Your task to perform on an android device: Search for the best gaming mouses on Amazon. Image 0: 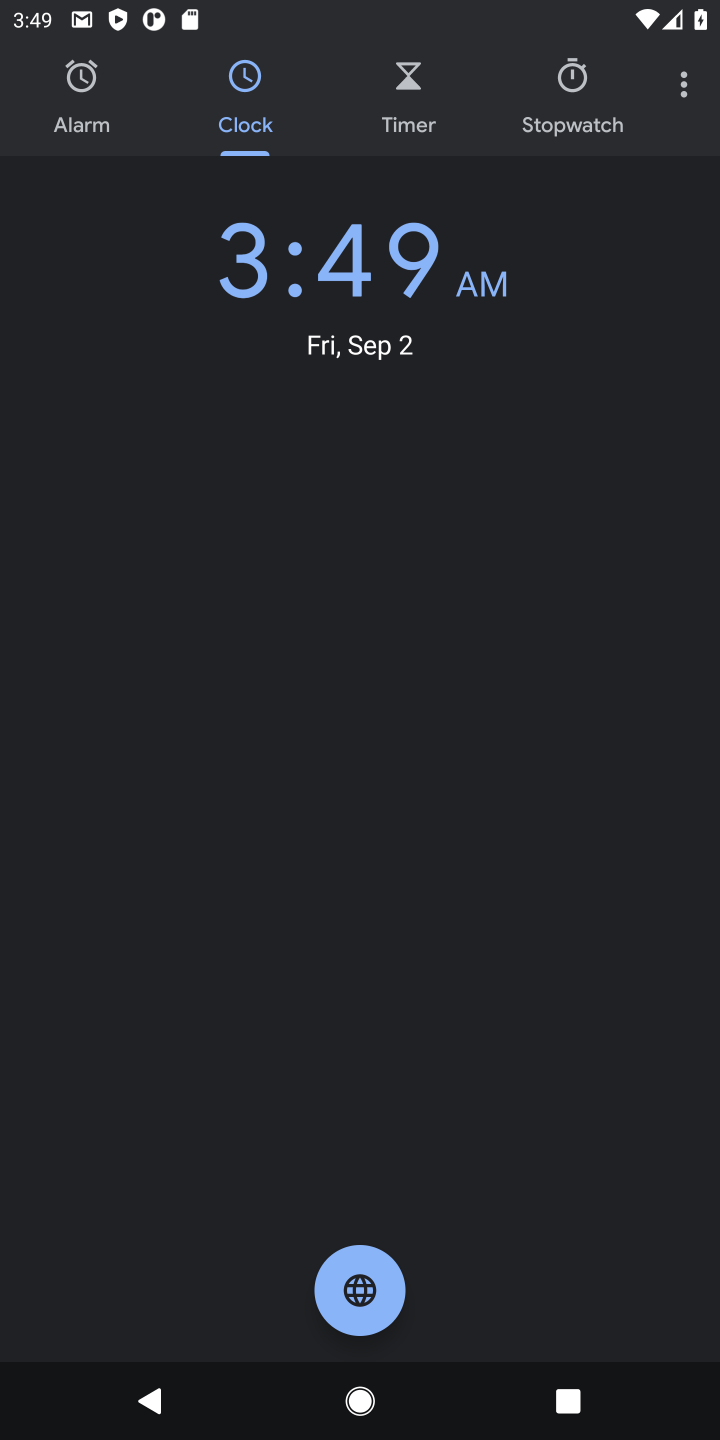
Step 0: press home button
Your task to perform on an android device: Search for the best gaming mouses on Amazon. Image 1: 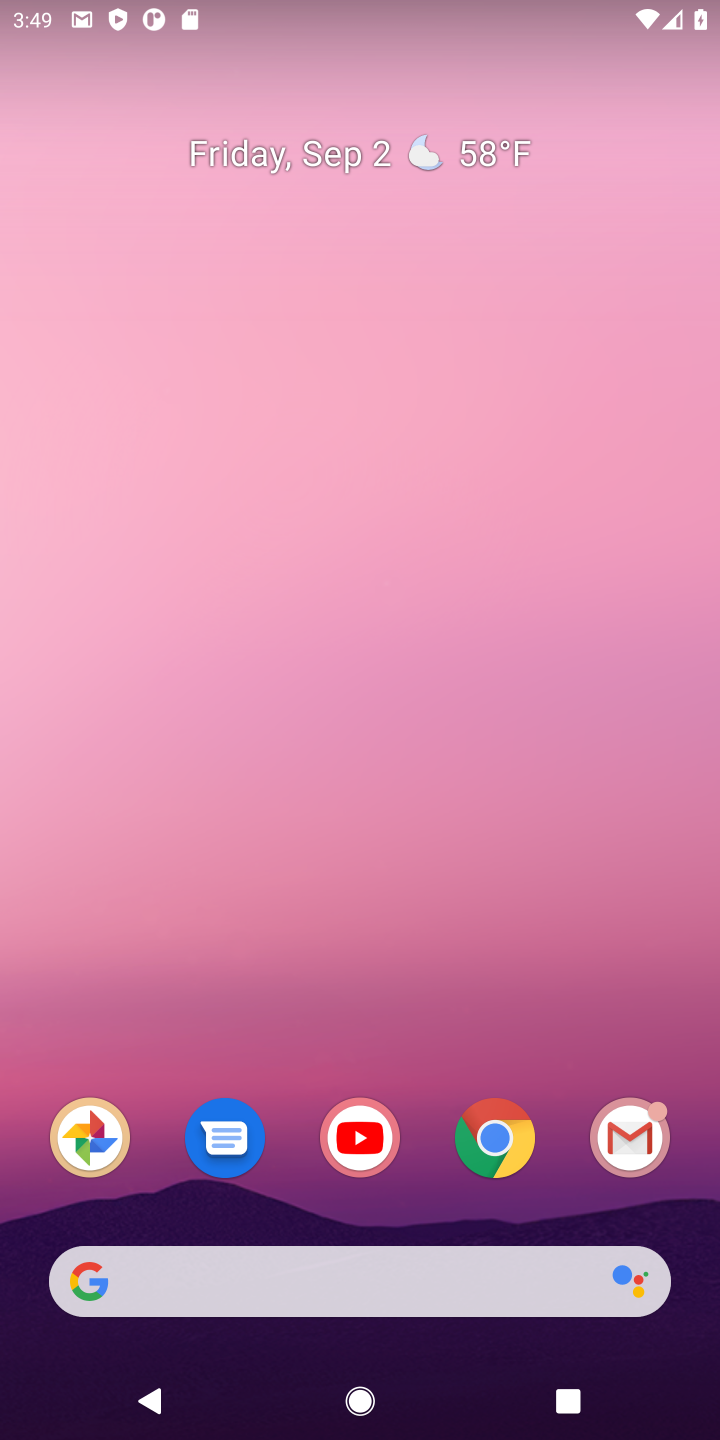
Step 1: click (492, 1135)
Your task to perform on an android device: Search for the best gaming mouses on Amazon. Image 2: 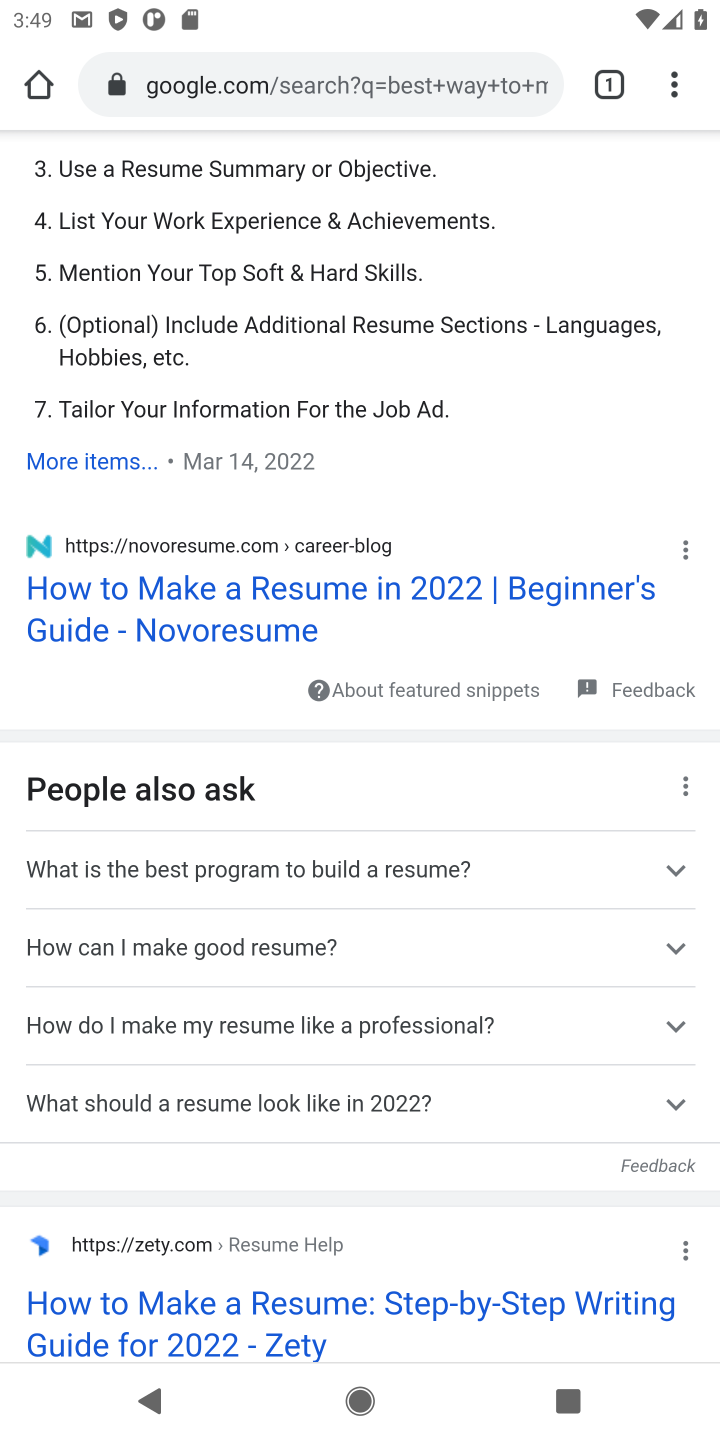
Step 2: click (404, 96)
Your task to perform on an android device: Search for the best gaming mouses on Amazon. Image 3: 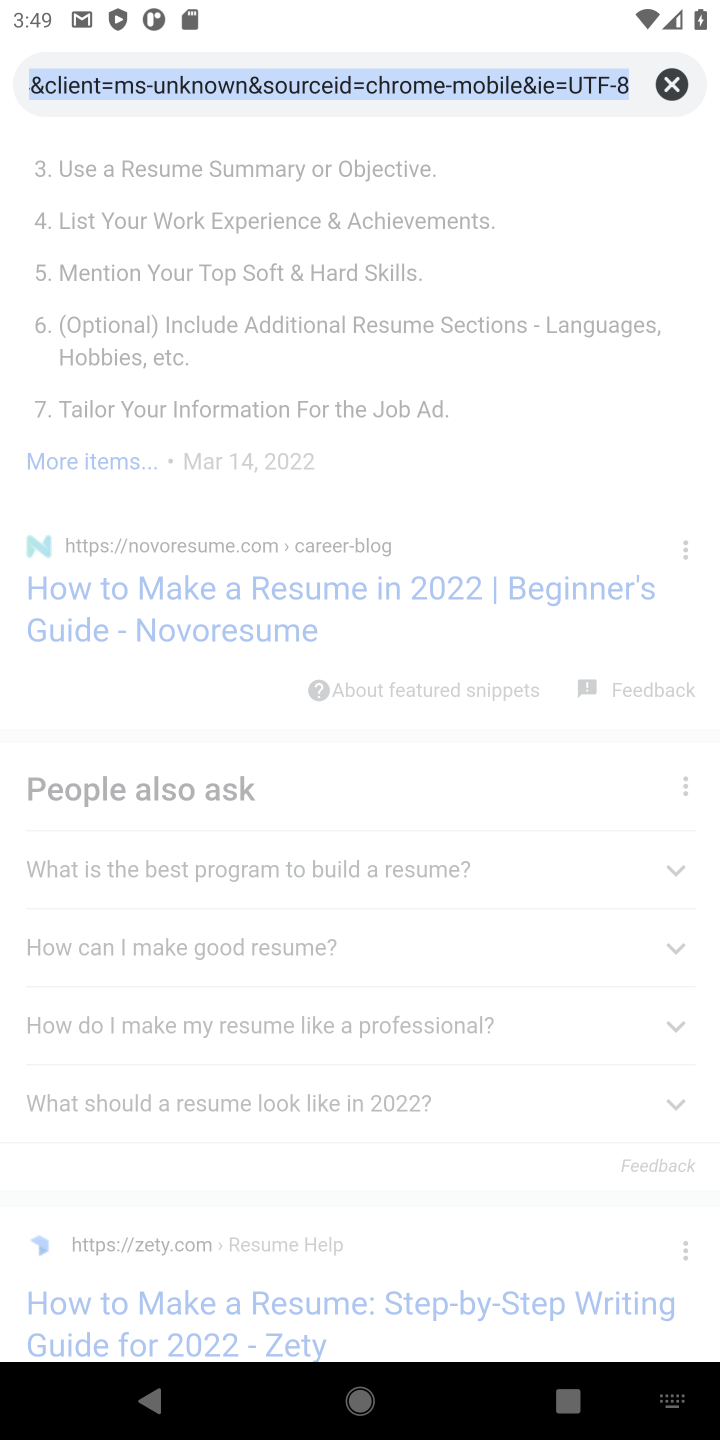
Step 3: type "amazon"
Your task to perform on an android device: Search for the best gaming mouses on Amazon. Image 4: 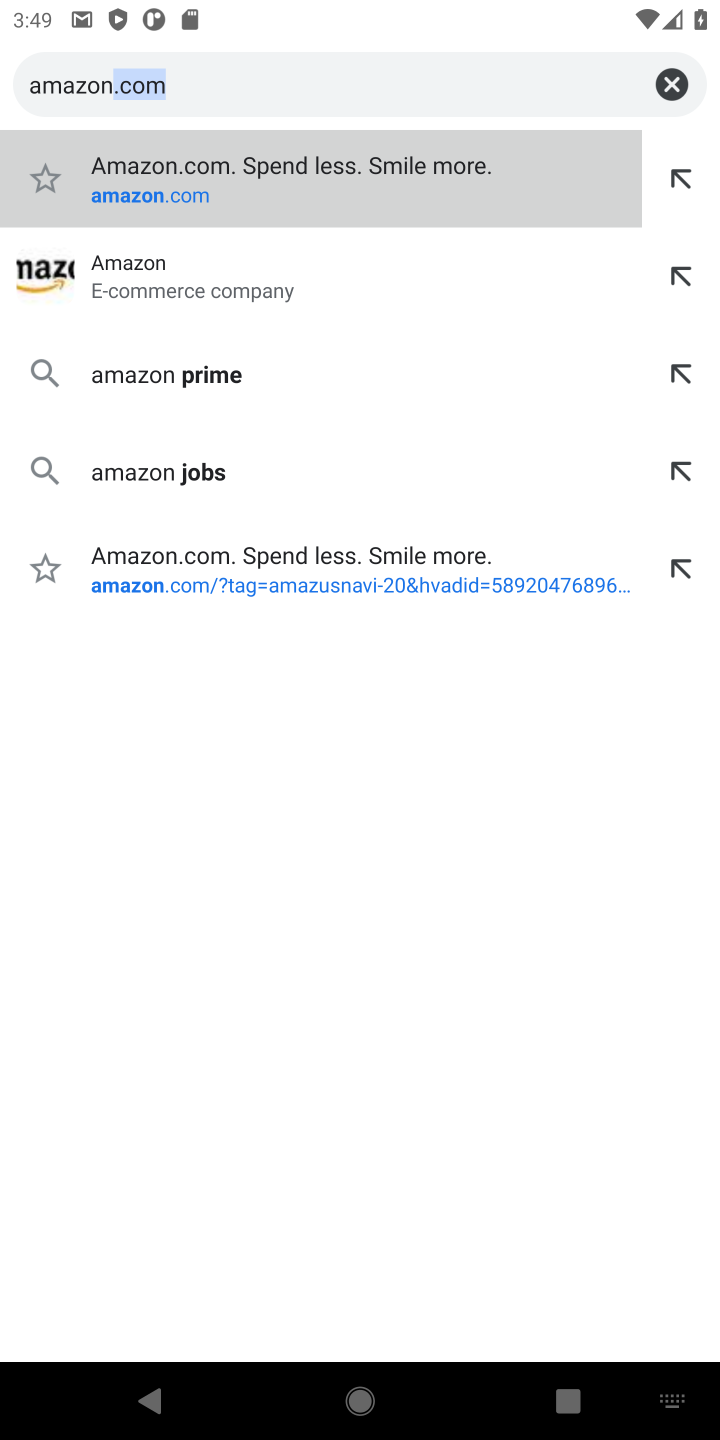
Step 4: click (309, 191)
Your task to perform on an android device: Search for the best gaming mouses on Amazon. Image 5: 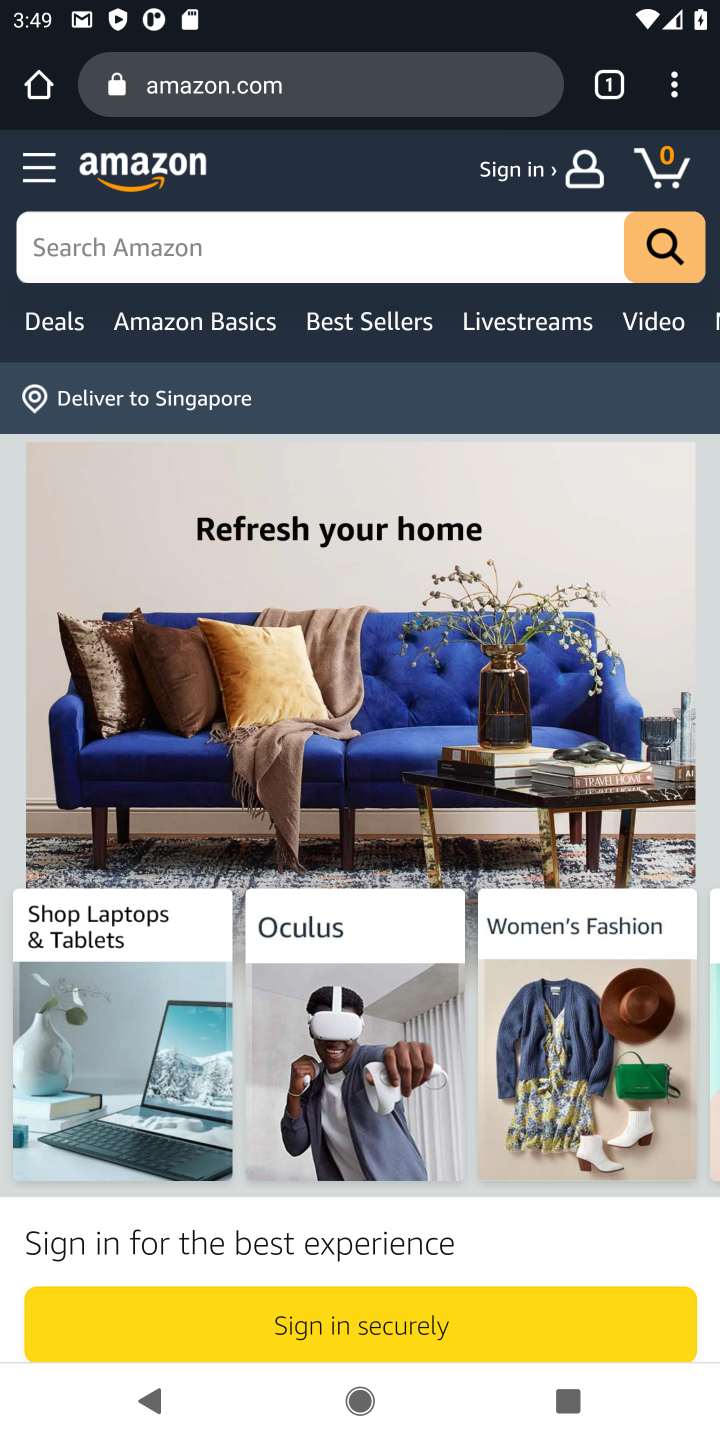
Step 5: click (210, 265)
Your task to perform on an android device: Search for the best gaming mouses on Amazon. Image 6: 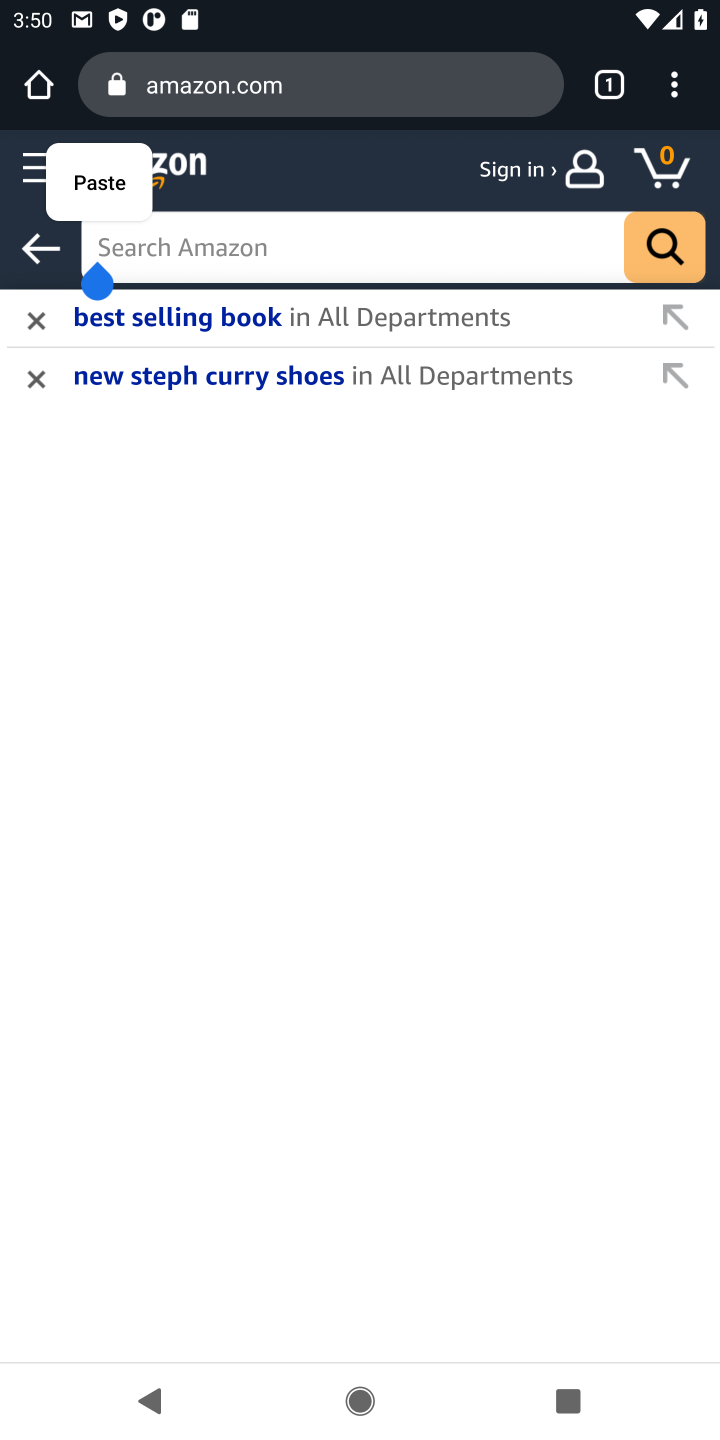
Step 6: type "gaming mouse"
Your task to perform on an android device: Search for the best gaming mouses on Amazon. Image 7: 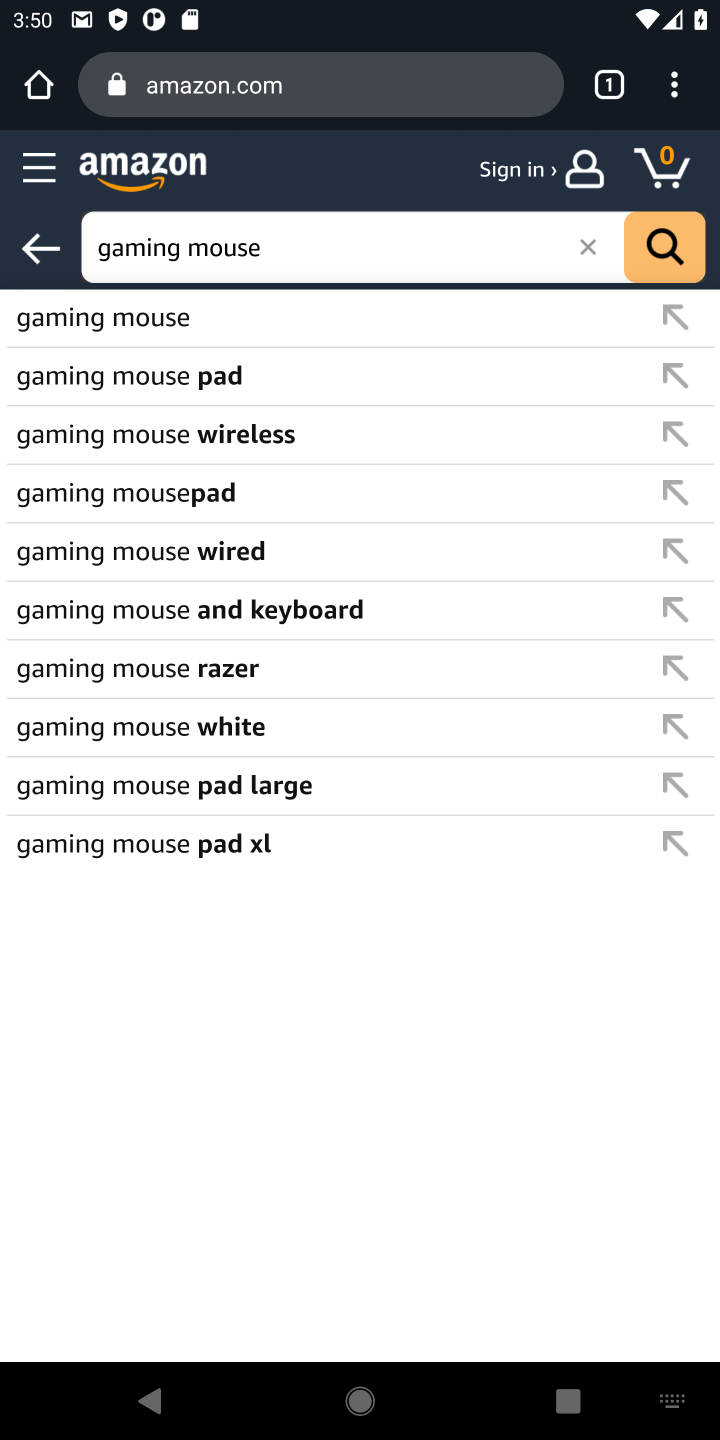
Step 7: click (457, 321)
Your task to perform on an android device: Search for the best gaming mouses on Amazon. Image 8: 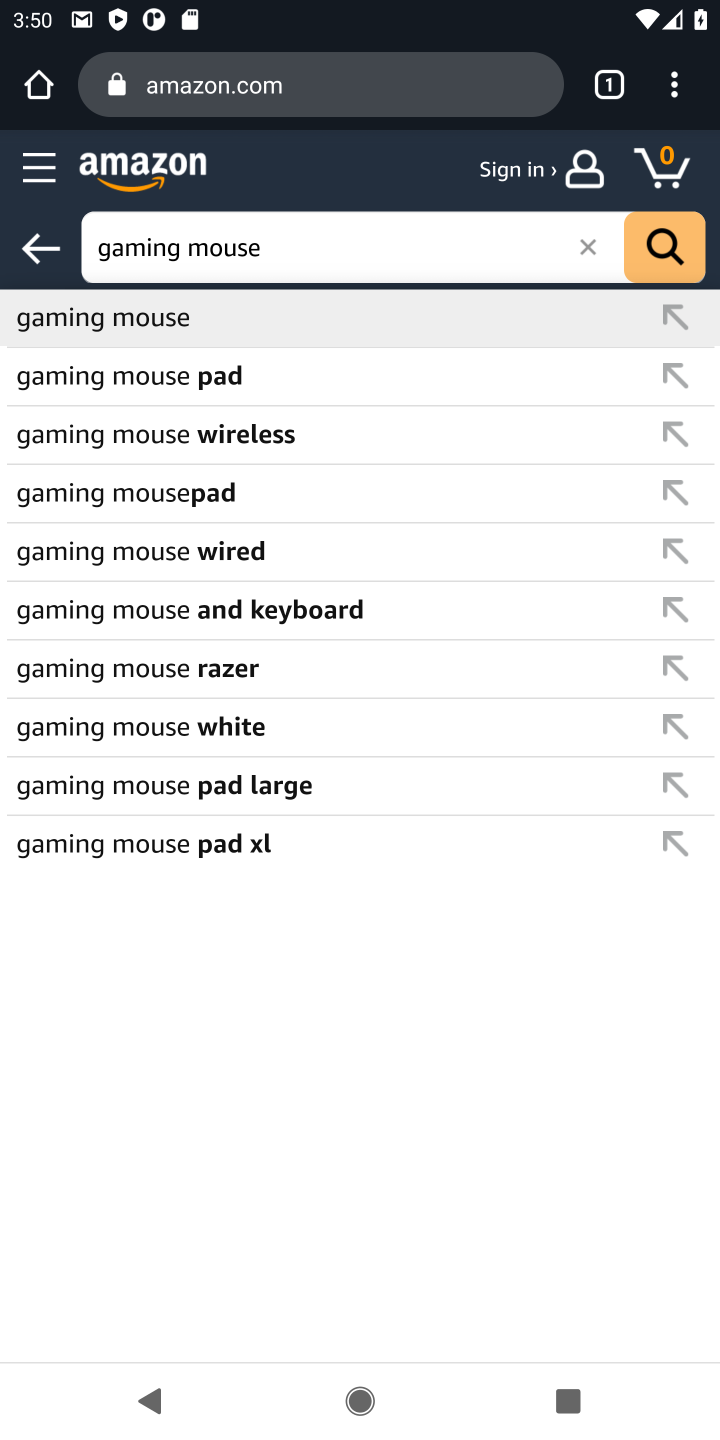
Step 8: click (288, 324)
Your task to perform on an android device: Search for the best gaming mouses on Amazon. Image 9: 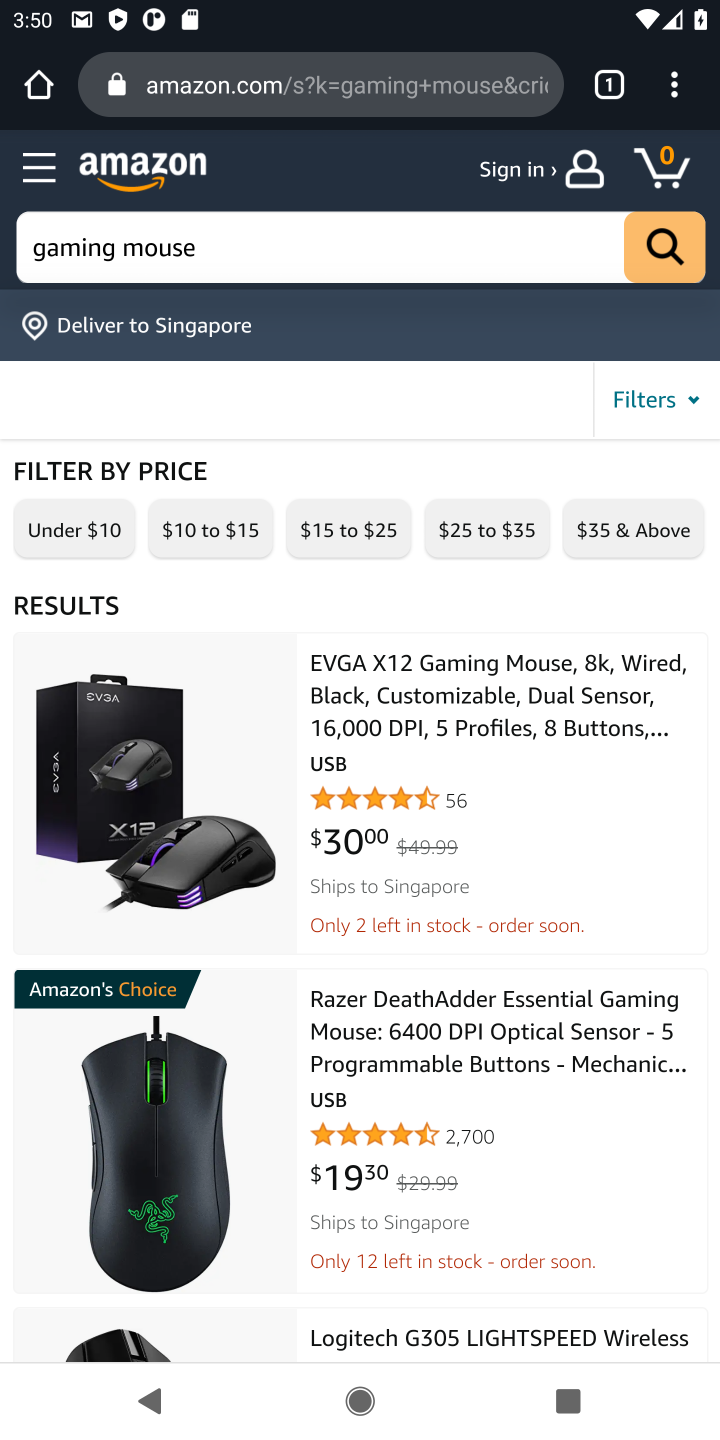
Step 9: click (620, 406)
Your task to perform on an android device: Search for the best gaming mouses on Amazon. Image 10: 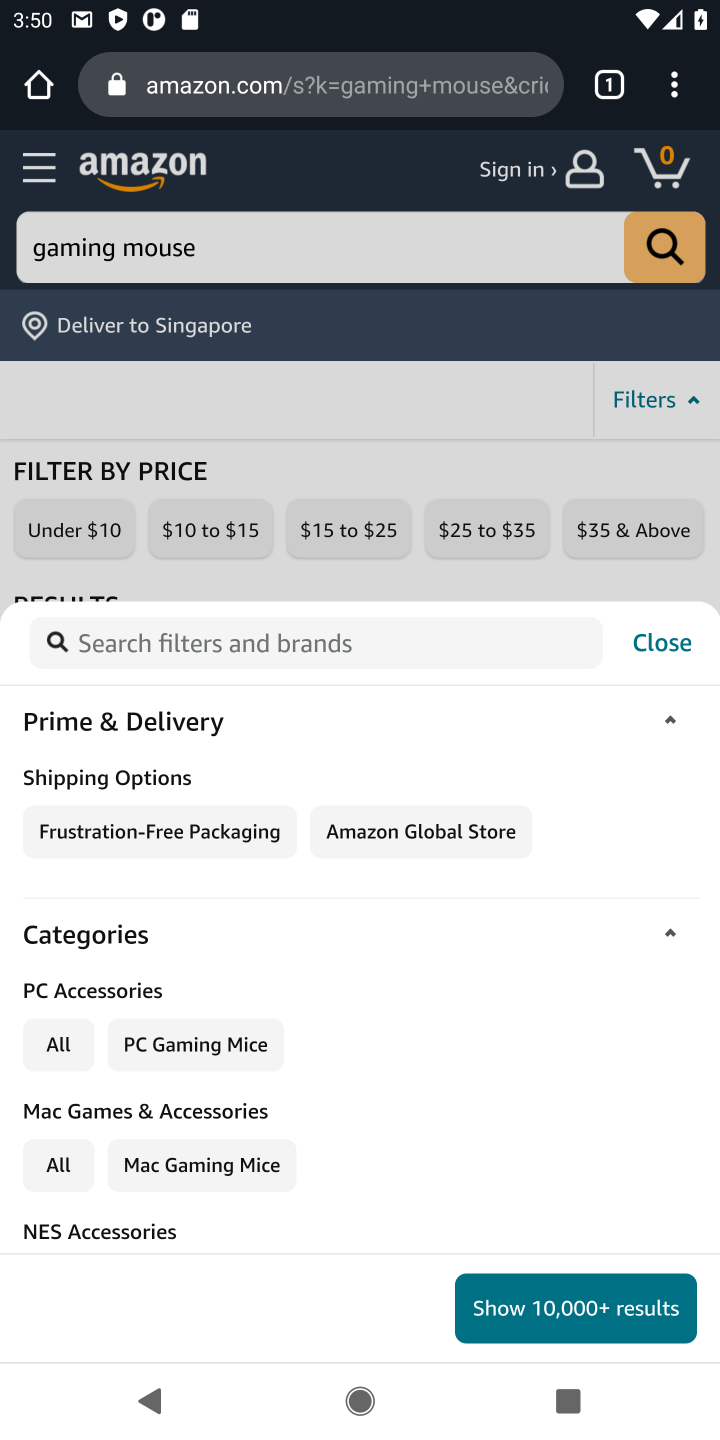
Step 10: drag from (530, 1043) to (394, 617)
Your task to perform on an android device: Search for the best gaming mouses on Amazon. Image 11: 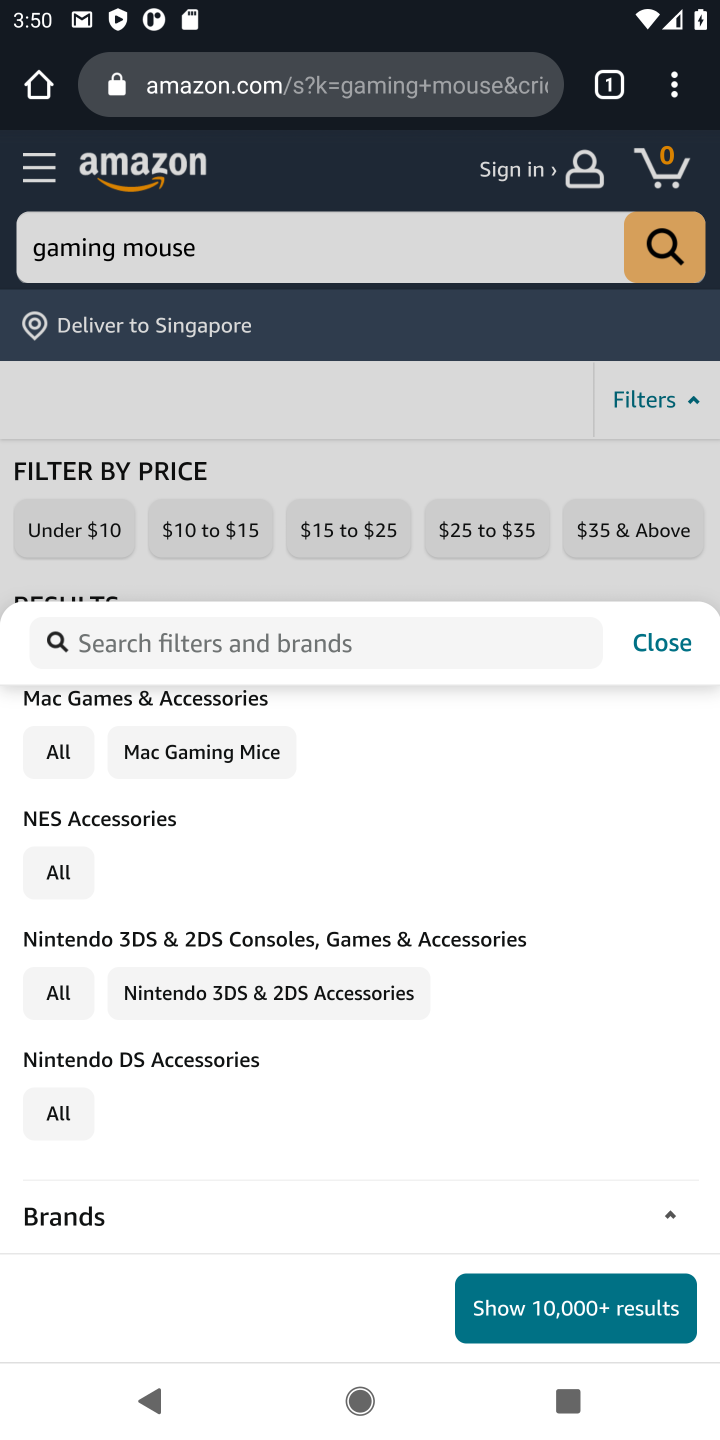
Step 11: drag from (491, 1156) to (302, 670)
Your task to perform on an android device: Search for the best gaming mouses on Amazon. Image 12: 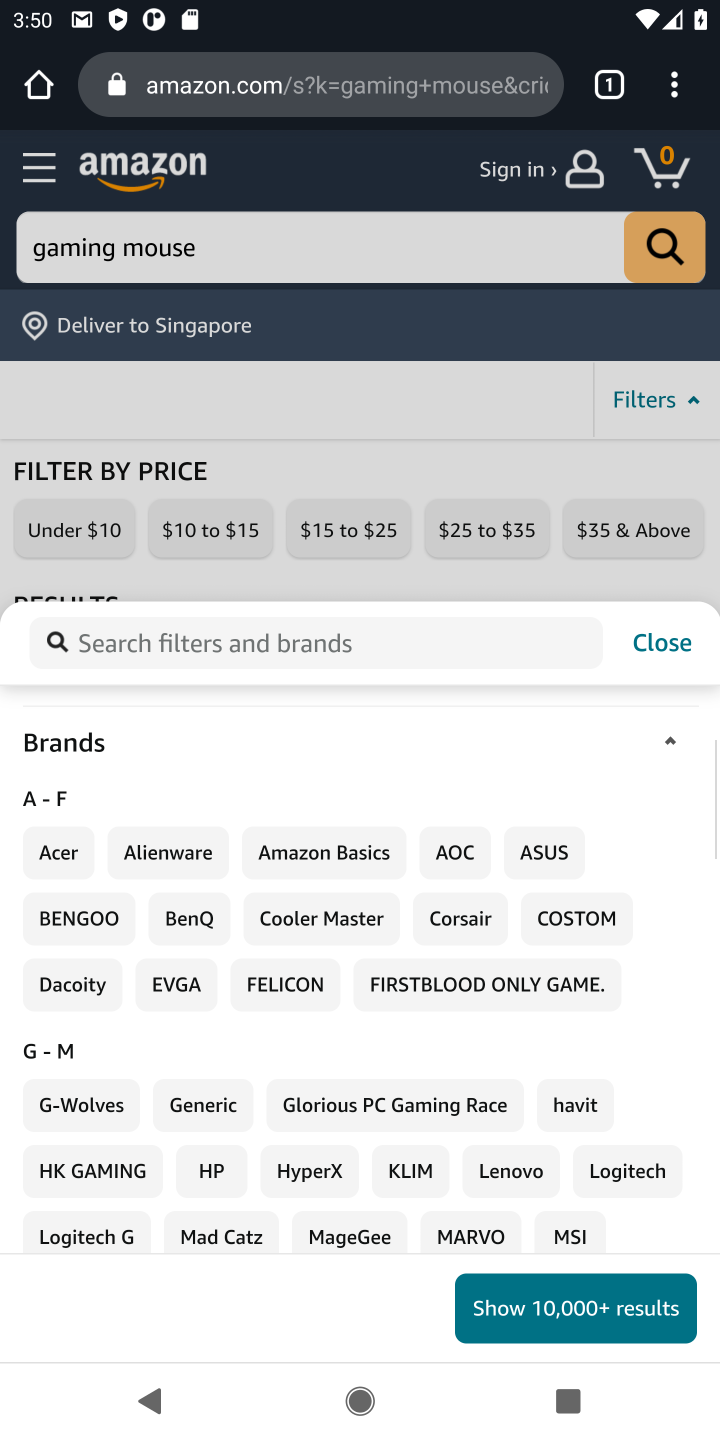
Step 12: drag from (459, 1072) to (308, 577)
Your task to perform on an android device: Search for the best gaming mouses on Amazon. Image 13: 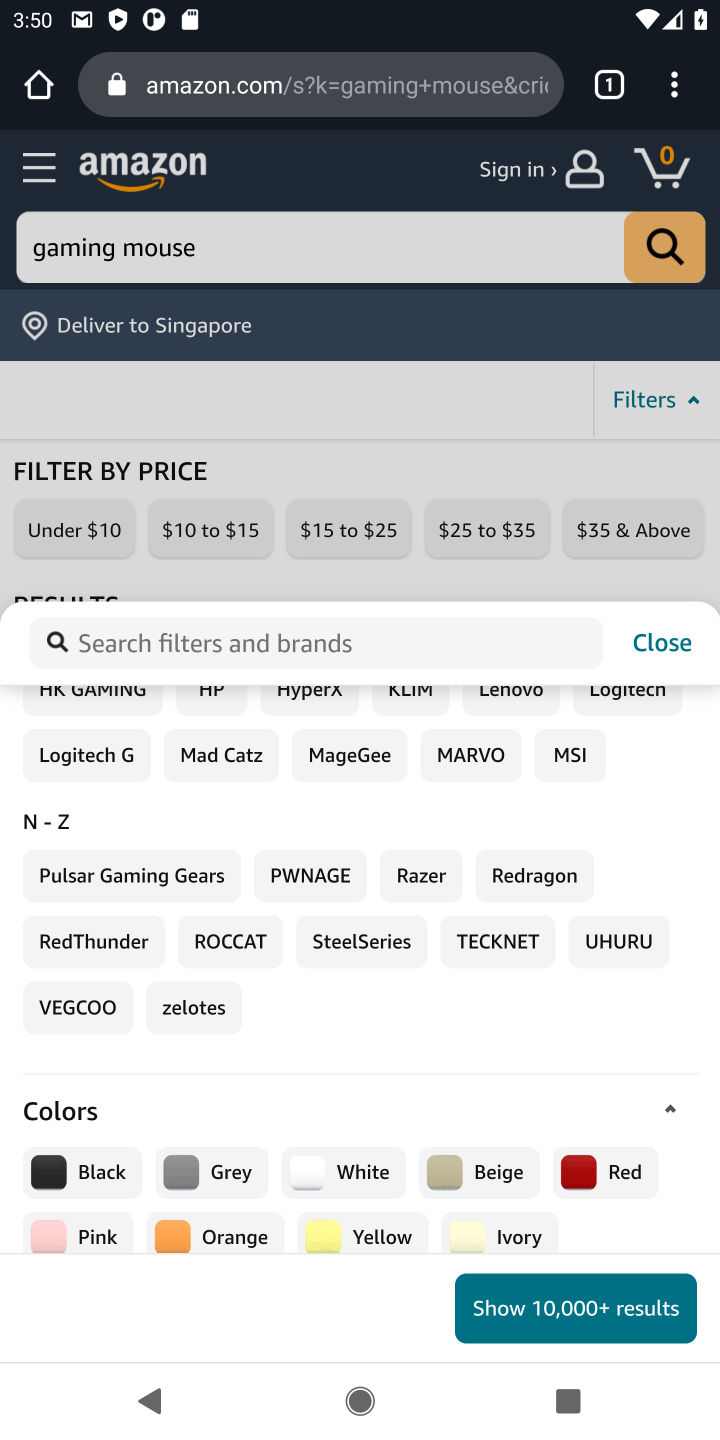
Step 13: drag from (404, 969) to (275, 581)
Your task to perform on an android device: Search for the best gaming mouses on Amazon. Image 14: 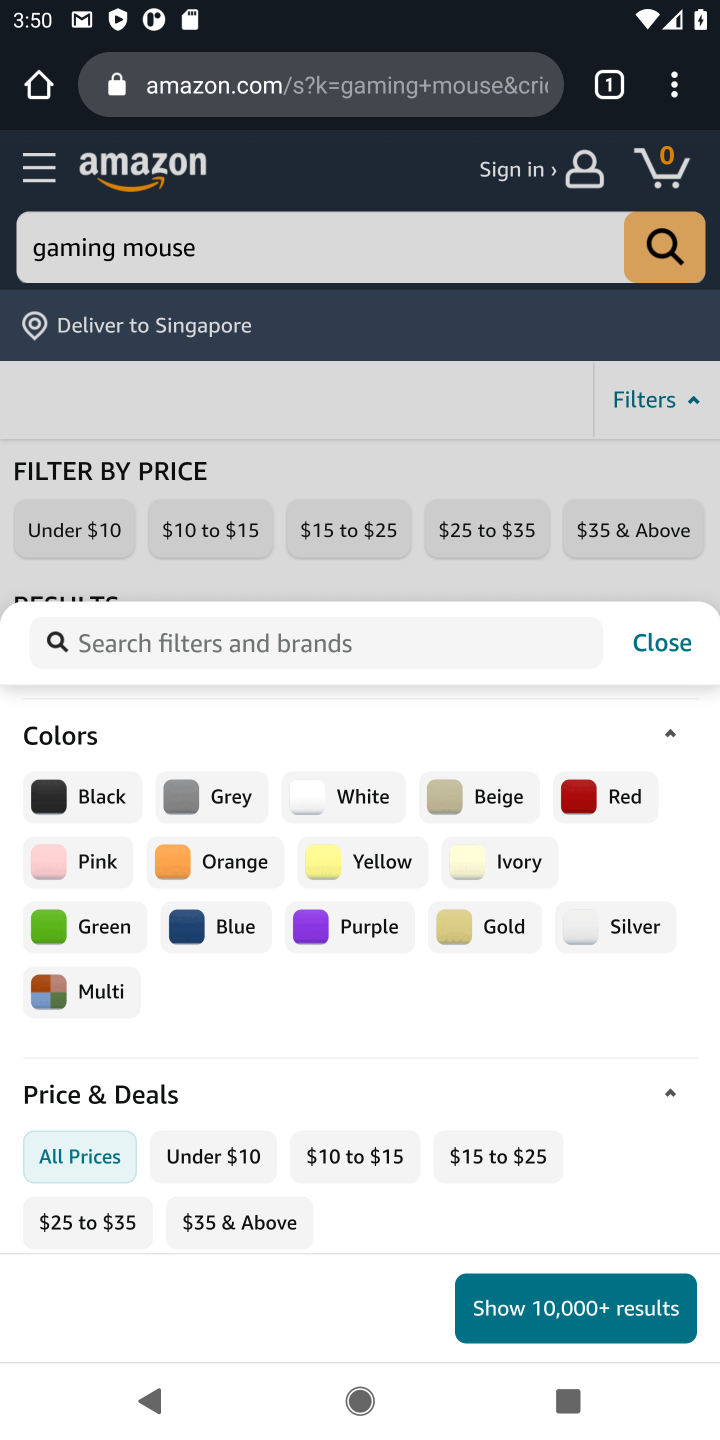
Step 14: drag from (529, 1043) to (299, 558)
Your task to perform on an android device: Search for the best gaming mouses on Amazon. Image 15: 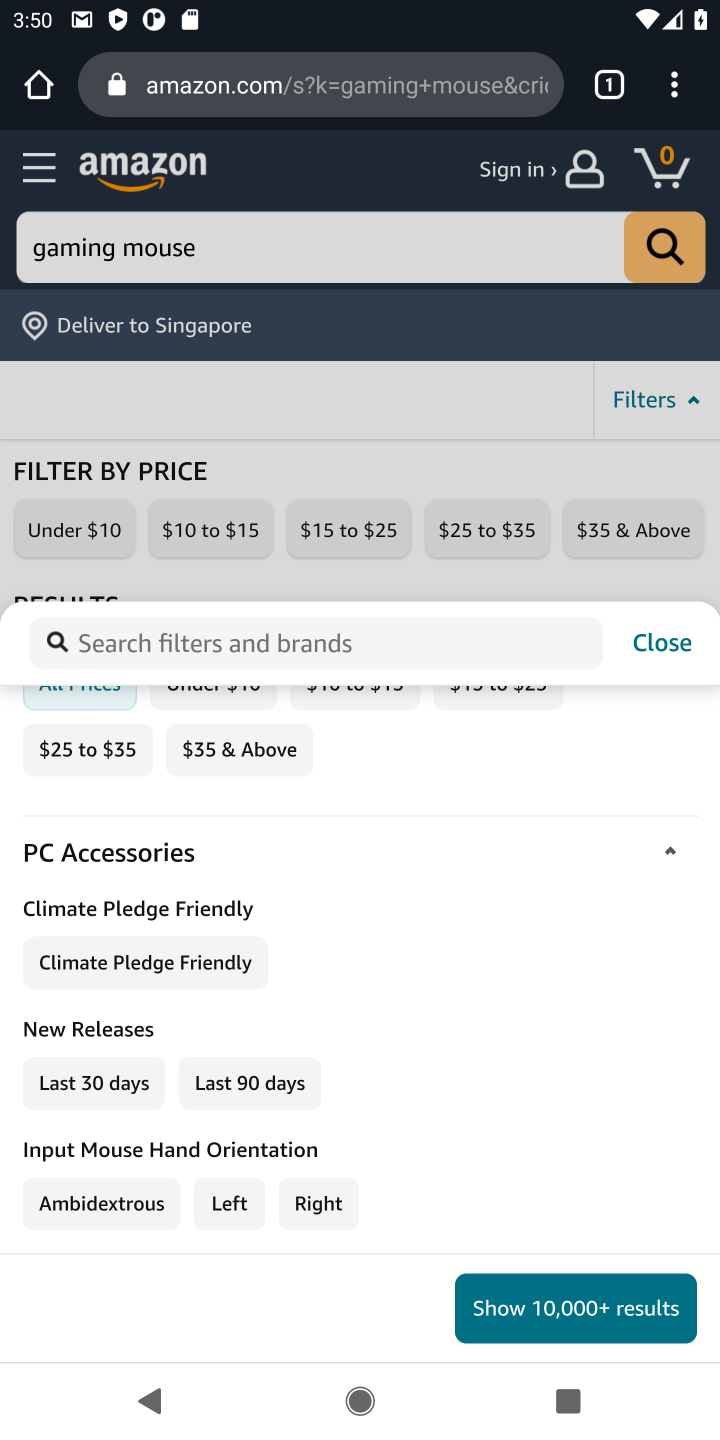
Step 15: drag from (452, 1024) to (304, 686)
Your task to perform on an android device: Search for the best gaming mouses on Amazon. Image 16: 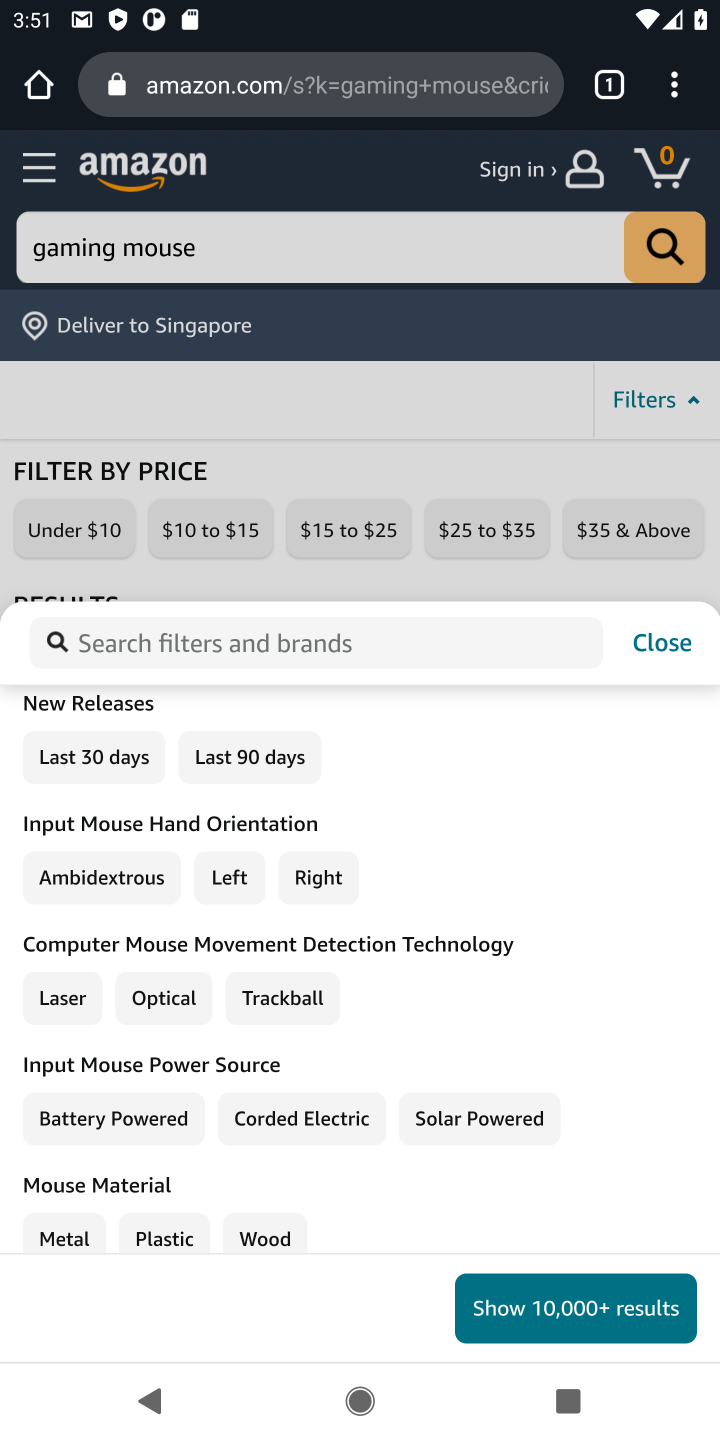
Step 16: drag from (491, 1185) to (339, 771)
Your task to perform on an android device: Search for the best gaming mouses on Amazon. Image 17: 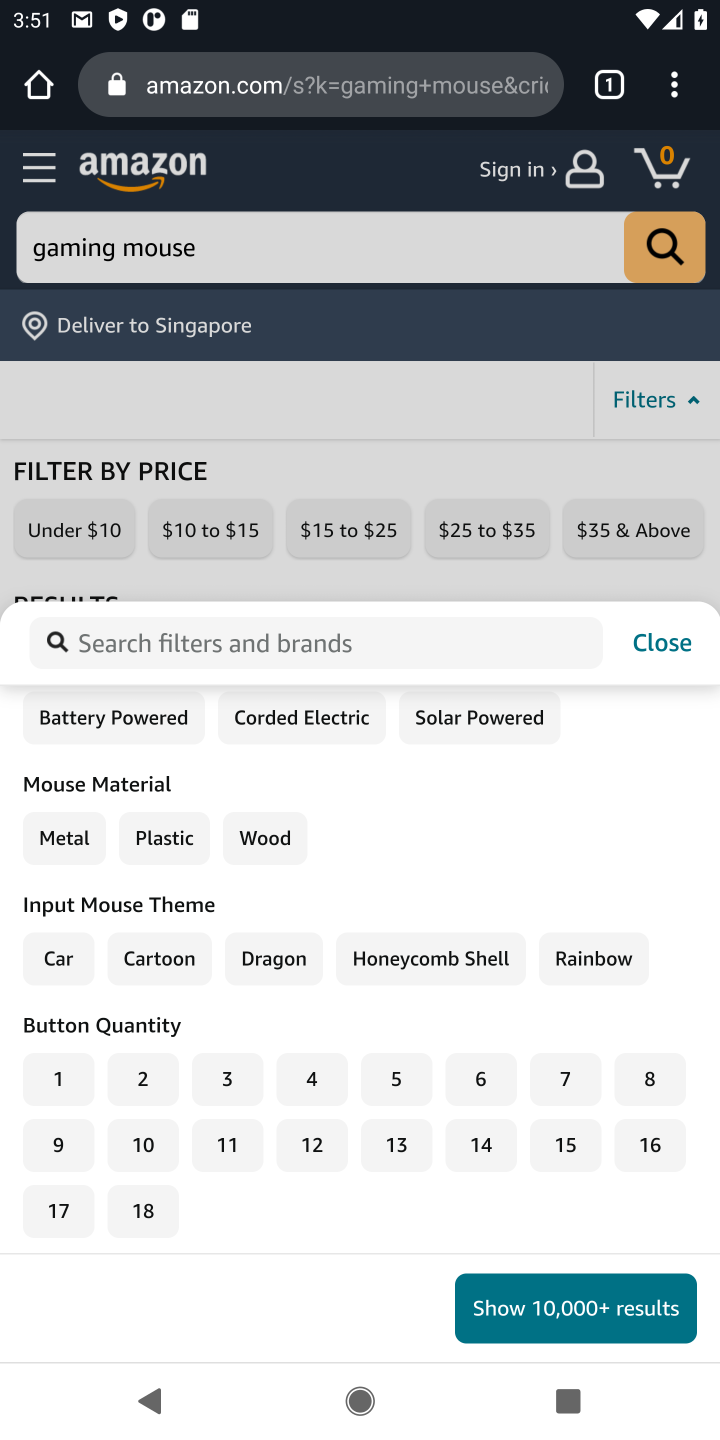
Step 17: drag from (480, 997) to (325, 677)
Your task to perform on an android device: Search for the best gaming mouses on Amazon. Image 18: 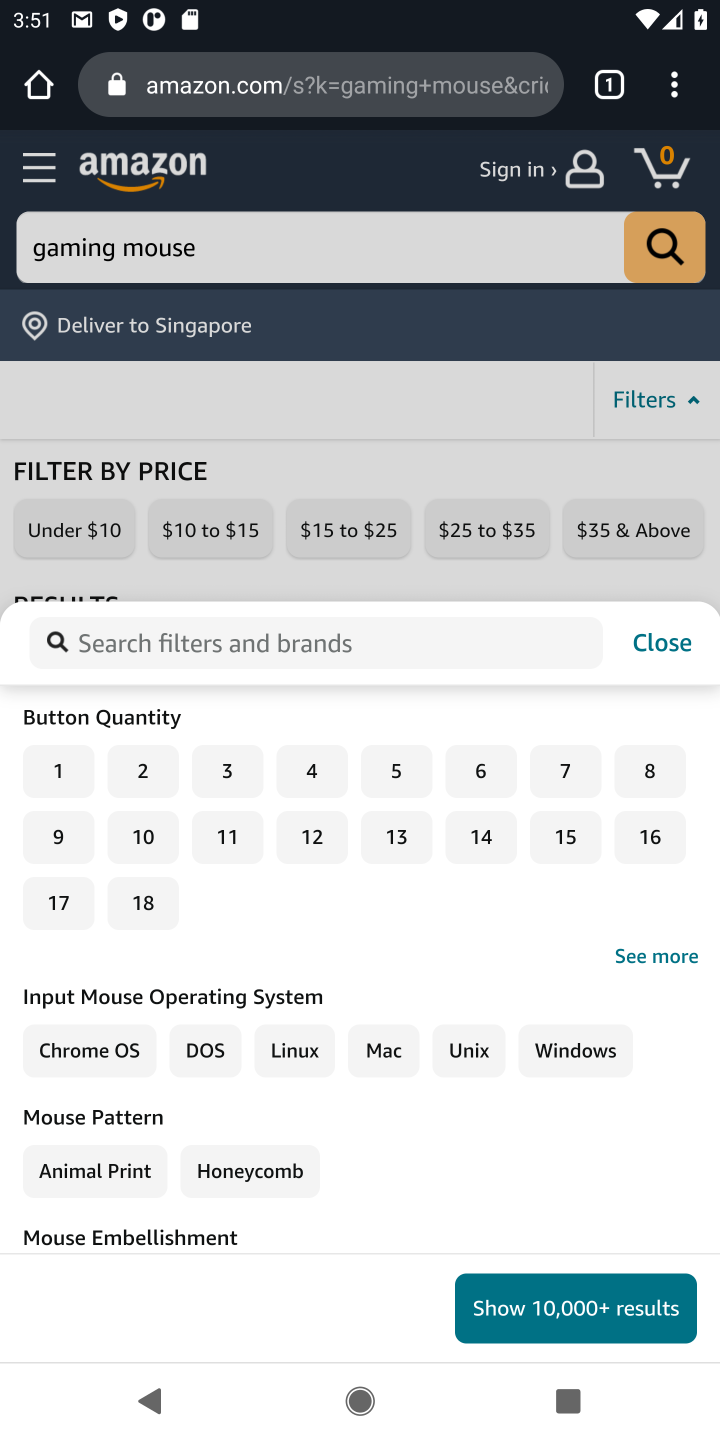
Step 18: drag from (475, 1161) to (261, 657)
Your task to perform on an android device: Search for the best gaming mouses on Amazon. Image 19: 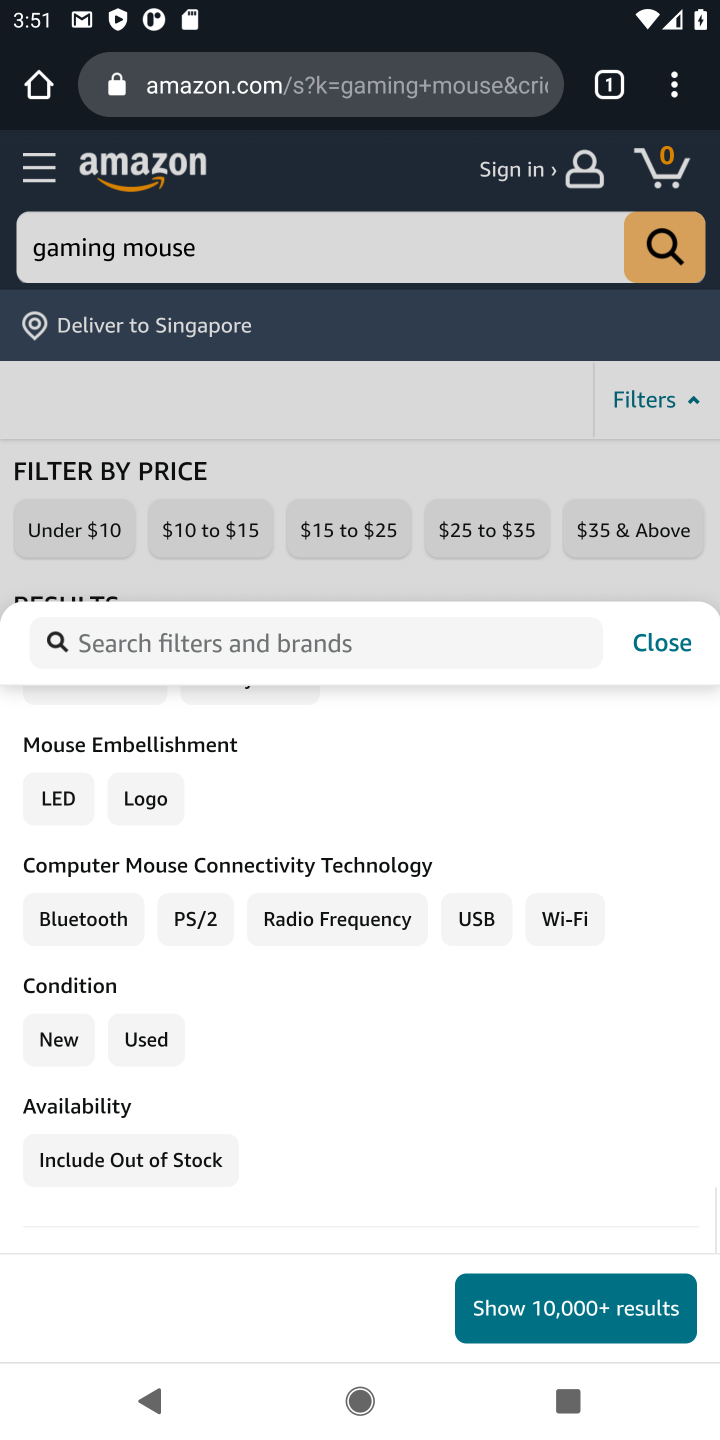
Step 19: drag from (427, 1094) to (278, 702)
Your task to perform on an android device: Search for the best gaming mouses on Amazon. Image 20: 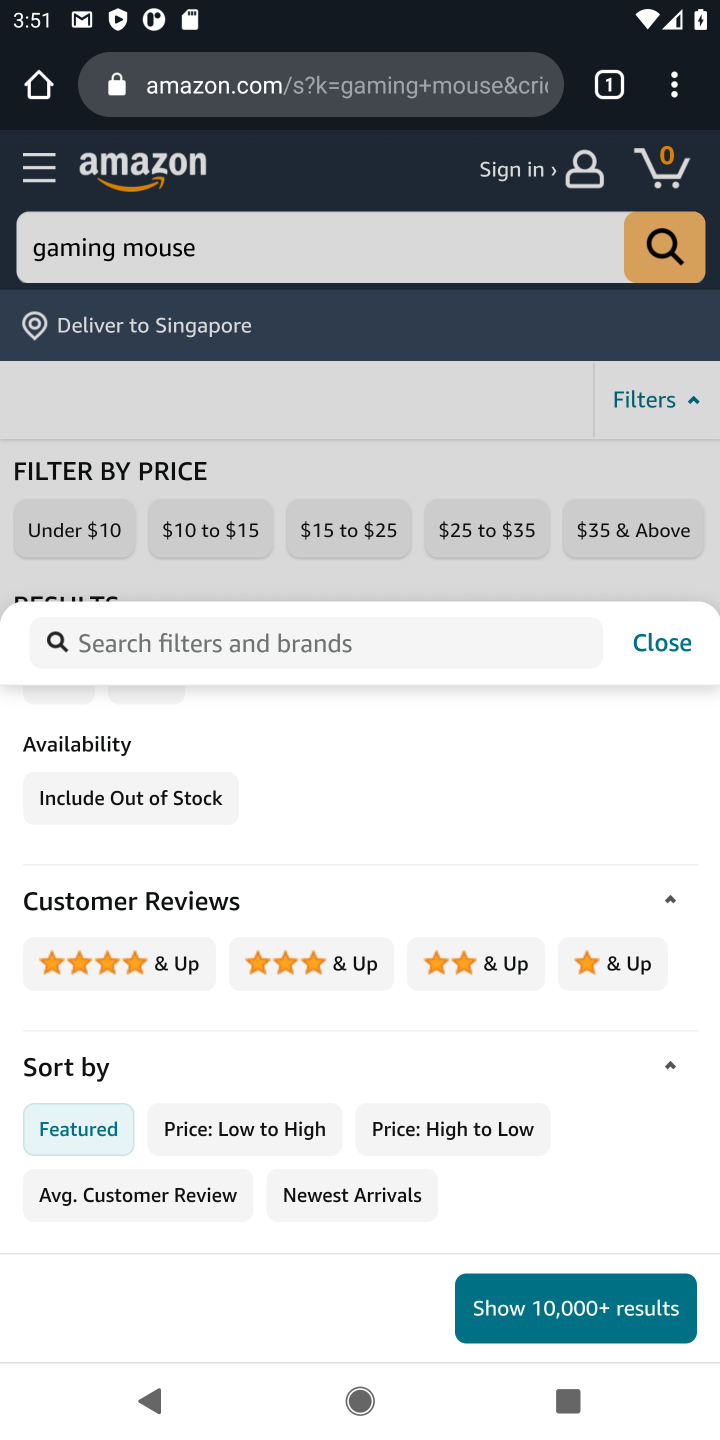
Step 20: click (173, 961)
Your task to perform on an android device: Search for the best gaming mouses on Amazon. Image 21: 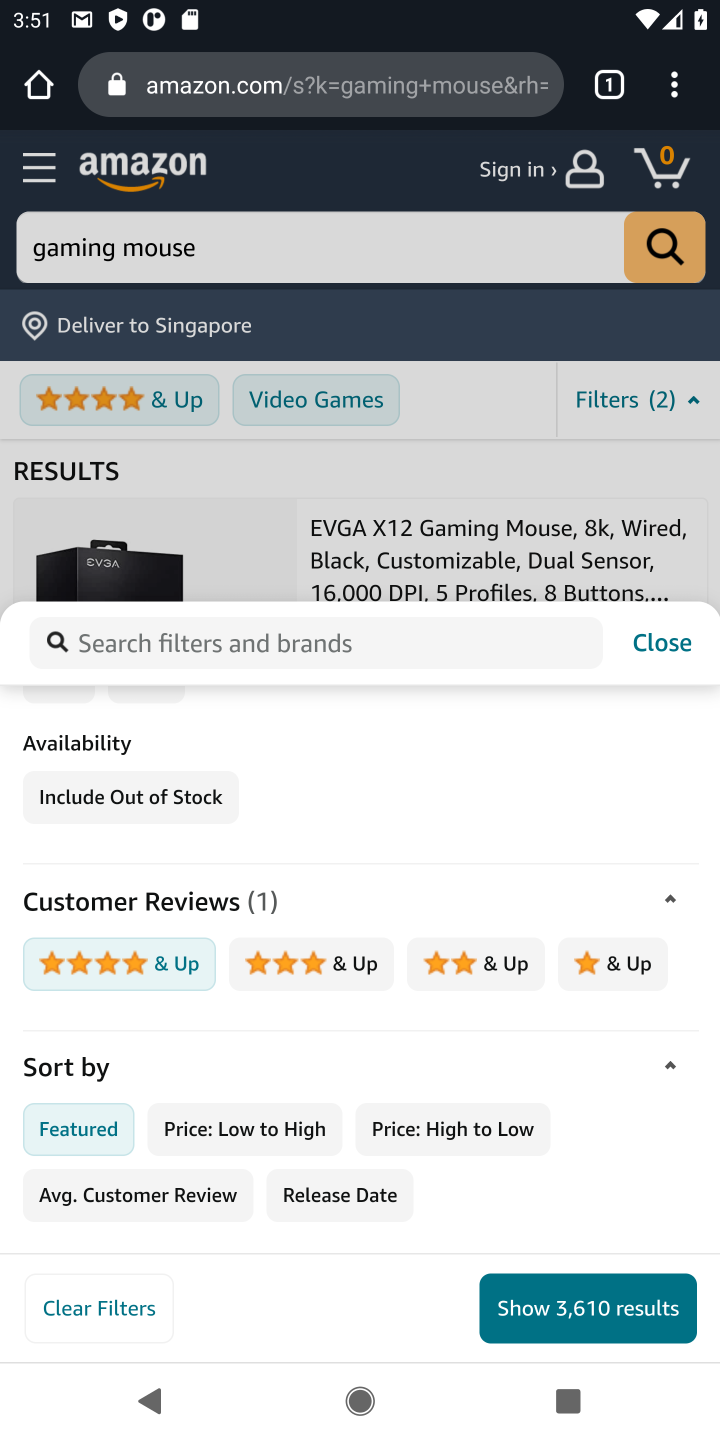
Step 21: click (571, 1300)
Your task to perform on an android device: Search for the best gaming mouses on Amazon. Image 22: 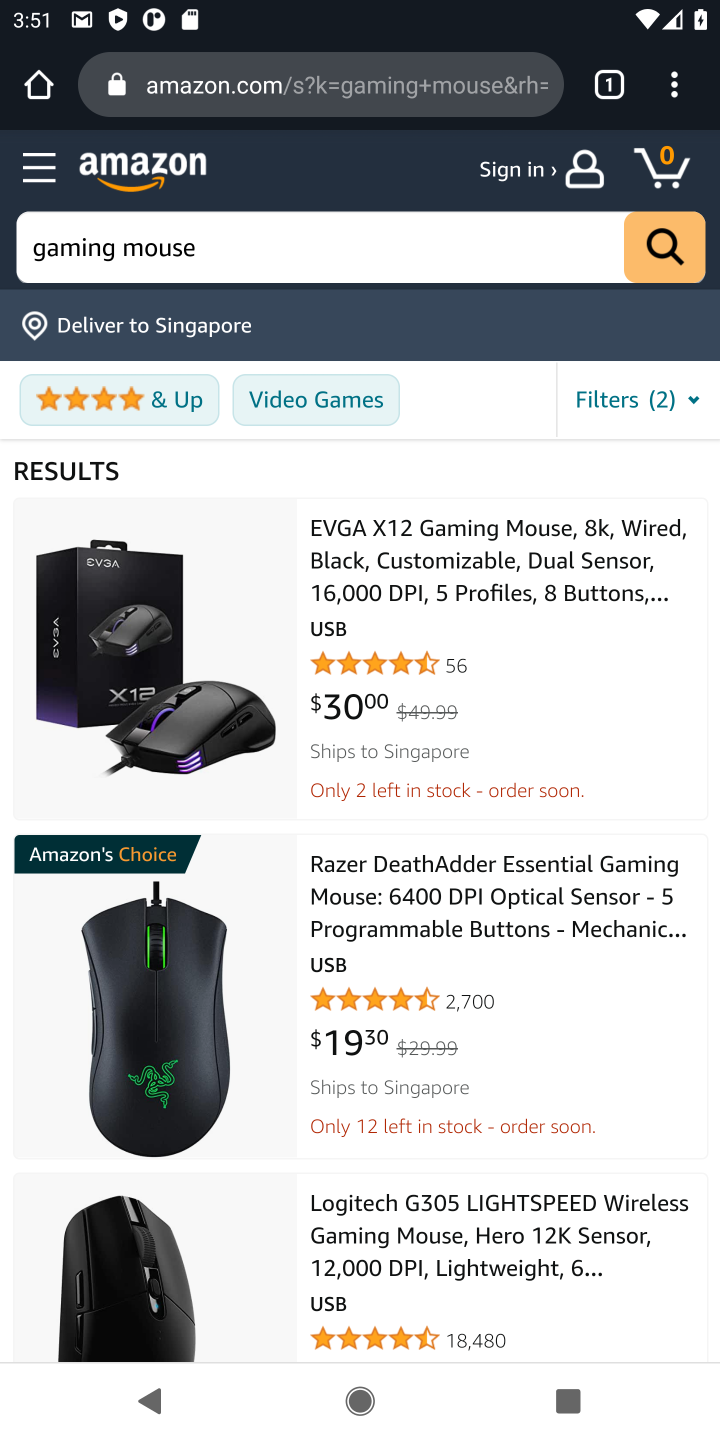
Step 22: task complete